Your task to perform on an android device: change the upload size in google photos Image 0: 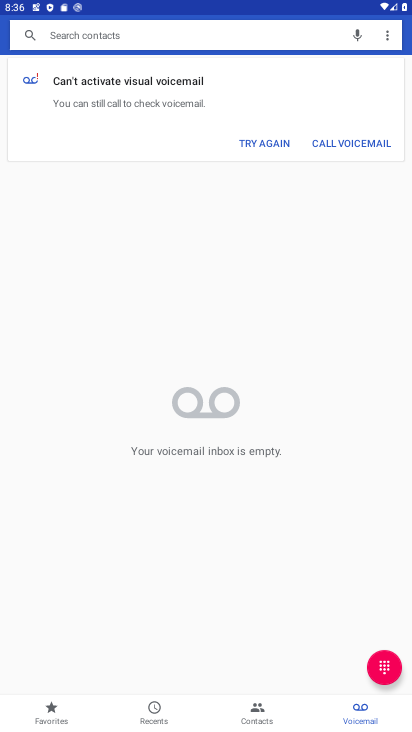
Step 0: press home button
Your task to perform on an android device: change the upload size in google photos Image 1: 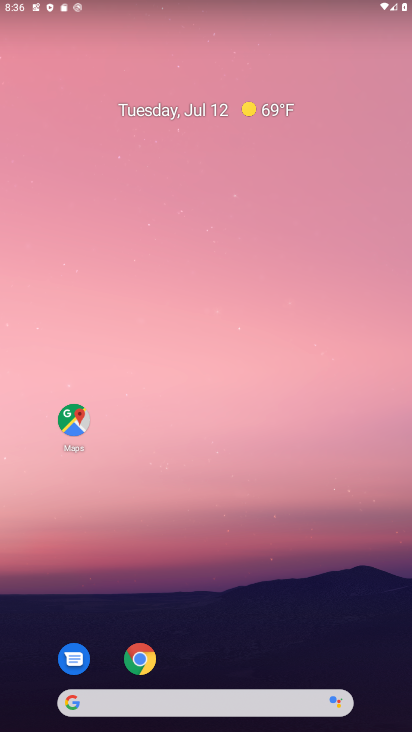
Step 1: drag from (245, 622) to (248, 136)
Your task to perform on an android device: change the upload size in google photos Image 2: 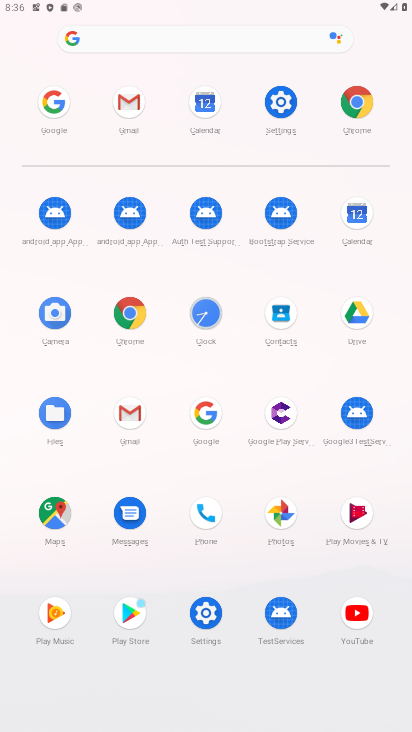
Step 2: click (282, 510)
Your task to perform on an android device: change the upload size in google photos Image 3: 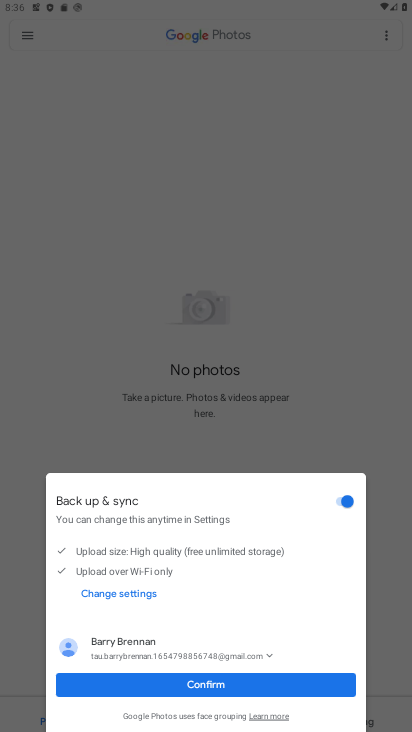
Step 3: click (207, 685)
Your task to perform on an android device: change the upload size in google photos Image 4: 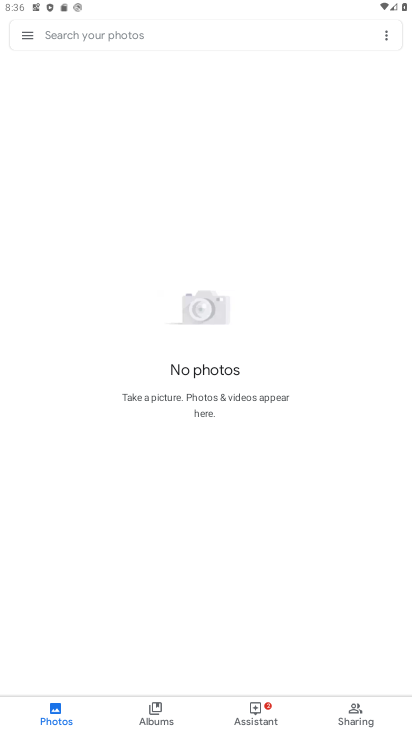
Step 4: click (25, 31)
Your task to perform on an android device: change the upload size in google photos Image 5: 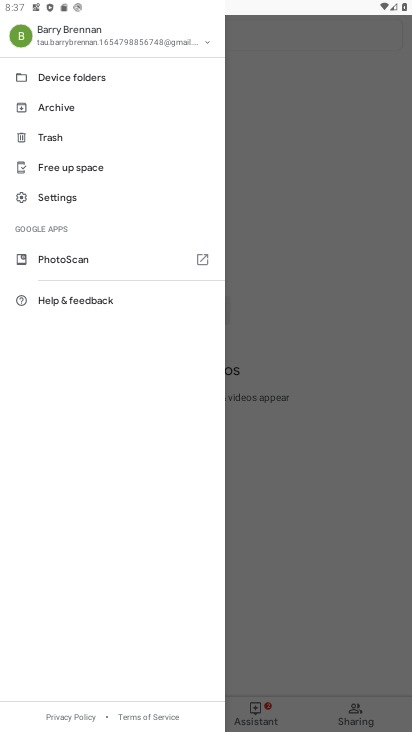
Step 5: click (54, 197)
Your task to perform on an android device: change the upload size in google photos Image 6: 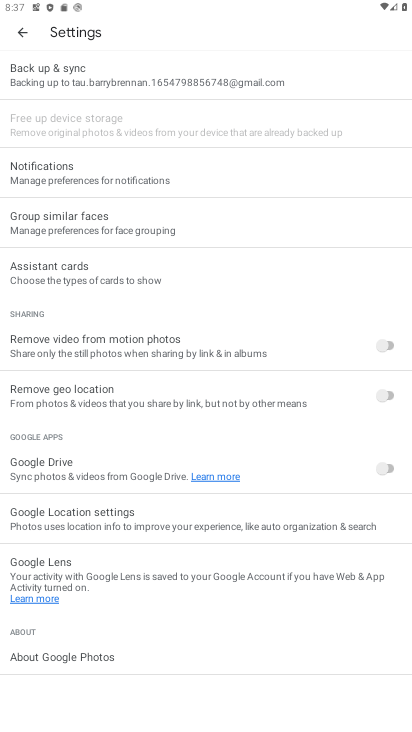
Step 6: click (62, 77)
Your task to perform on an android device: change the upload size in google photos Image 7: 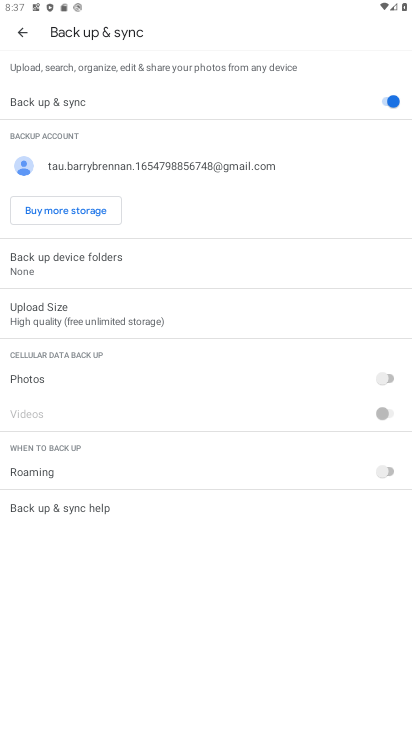
Step 7: click (48, 308)
Your task to perform on an android device: change the upload size in google photos Image 8: 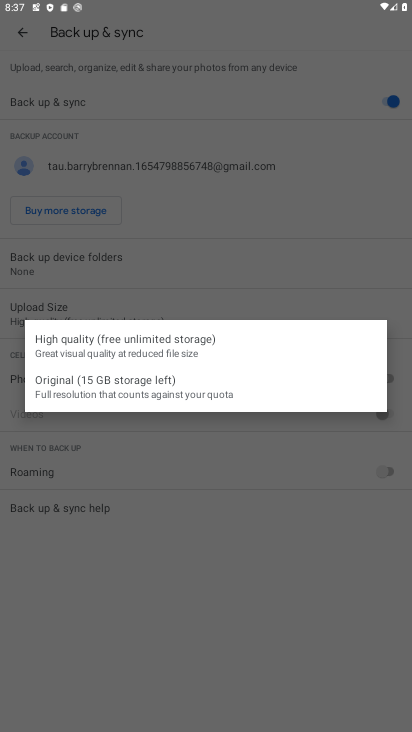
Step 8: click (89, 381)
Your task to perform on an android device: change the upload size in google photos Image 9: 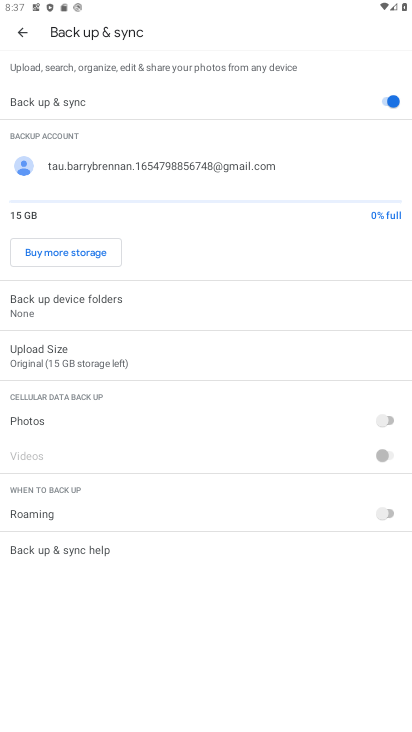
Step 9: task complete